Your task to perform on an android device: Go to Google maps Image 0: 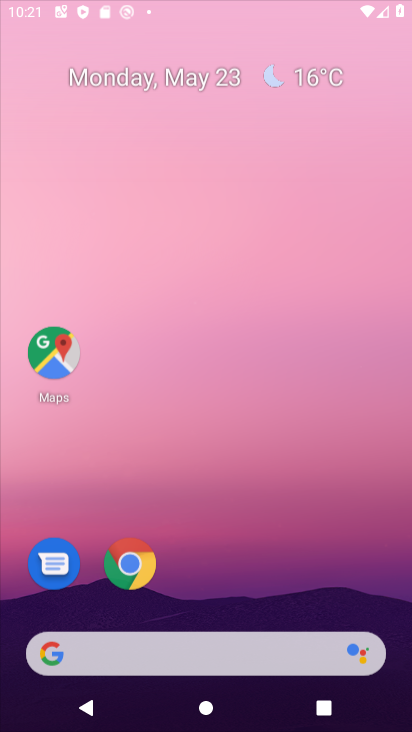
Step 0: click (29, 34)
Your task to perform on an android device: Go to Google maps Image 1: 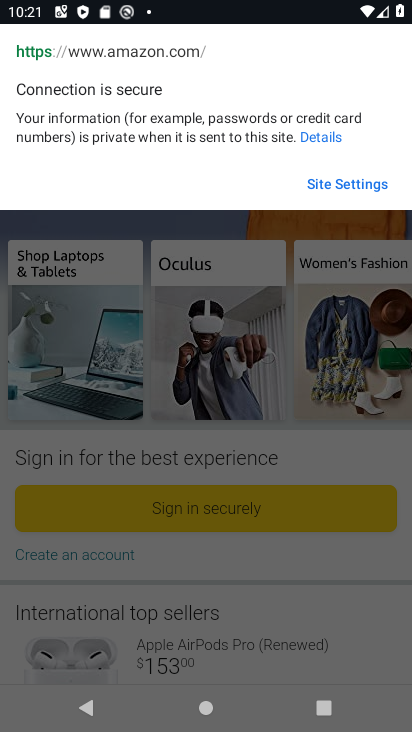
Step 1: press home button
Your task to perform on an android device: Go to Google maps Image 2: 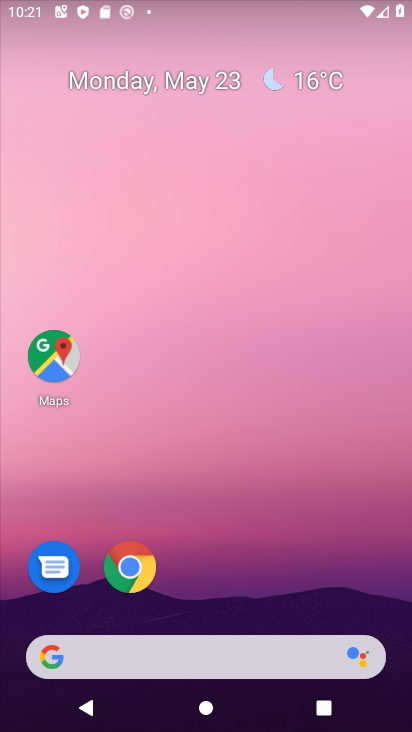
Step 2: drag from (222, 604) to (301, 39)
Your task to perform on an android device: Go to Google maps Image 3: 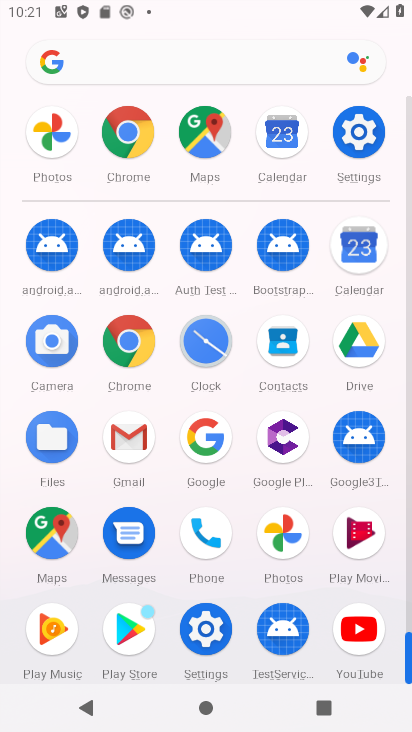
Step 3: click (61, 542)
Your task to perform on an android device: Go to Google maps Image 4: 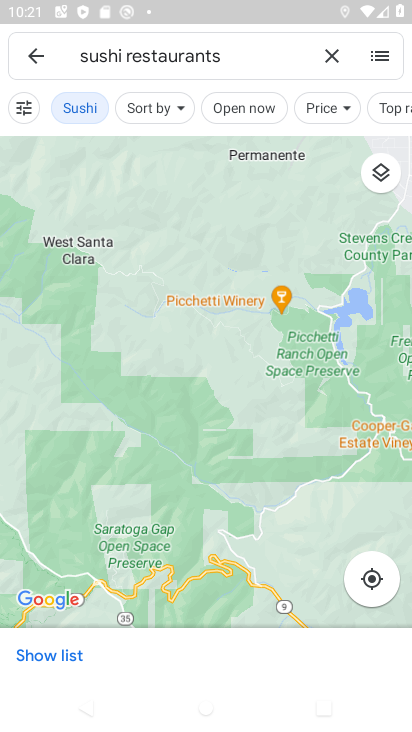
Step 4: drag from (240, 514) to (288, 224)
Your task to perform on an android device: Go to Google maps Image 5: 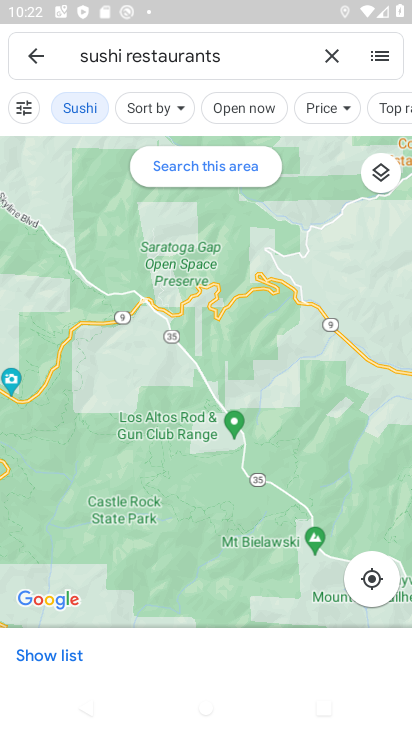
Step 5: click (22, 50)
Your task to perform on an android device: Go to Google maps Image 6: 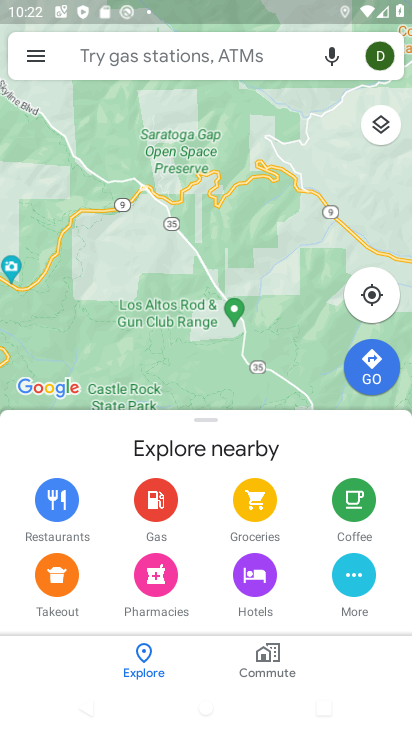
Step 6: task complete